Your task to perform on an android device: Turn on the flashlight Image 0: 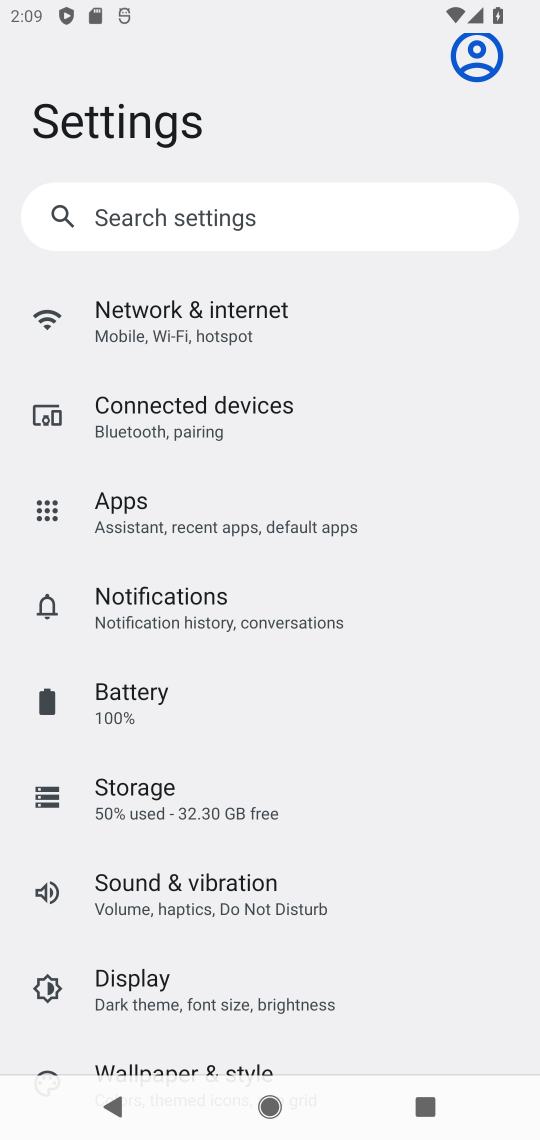
Step 0: click (220, 299)
Your task to perform on an android device: Turn on the flashlight Image 1: 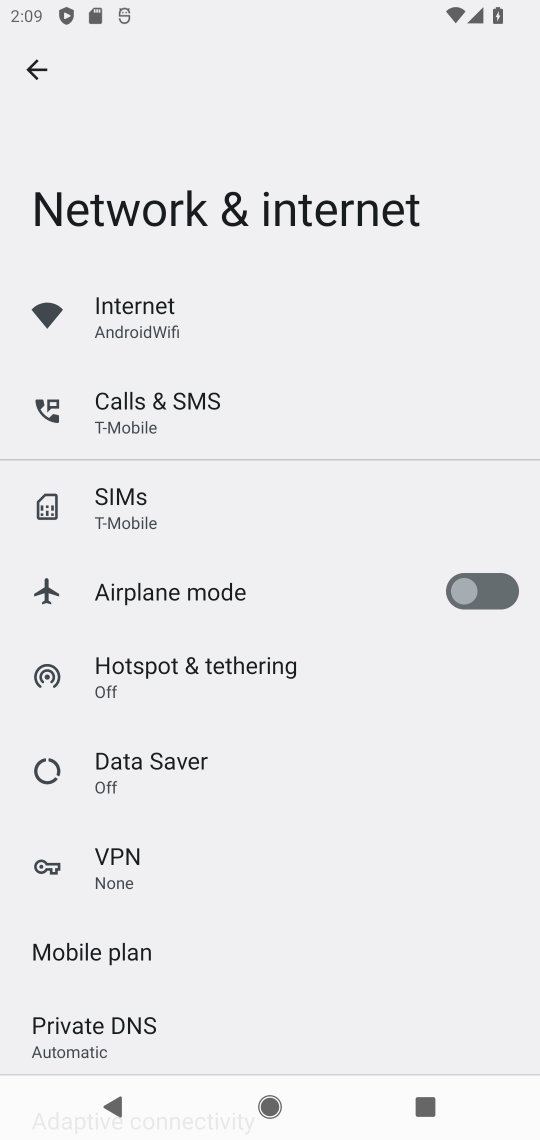
Step 1: click (32, 66)
Your task to perform on an android device: Turn on the flashlight Image 2: 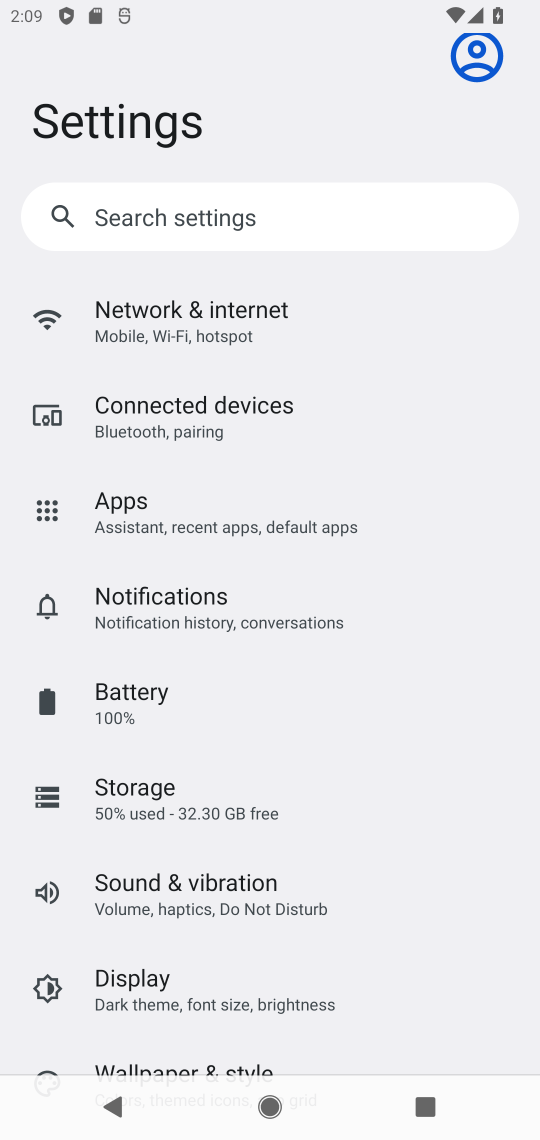
Step 2: click (129, 990)
Your task to perform on an android device: Turn on the flashlight Image 3: 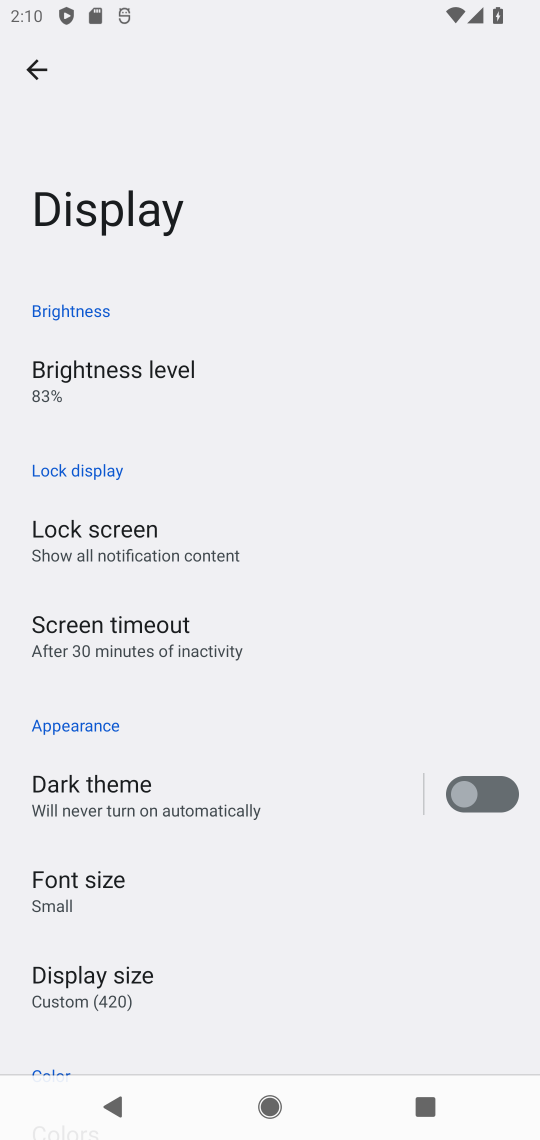
Step 3: task complete